Your task to perform on an android device: turn on showing notifications on the lock screen Image 0: 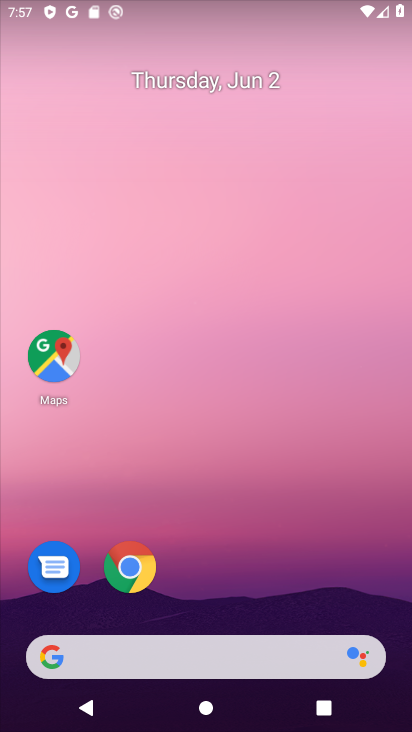
Step 0: drag from (267, 563) to (153, 78)
Your task to perform on an android device: turn on showing notifications on the lock screen Image 1: 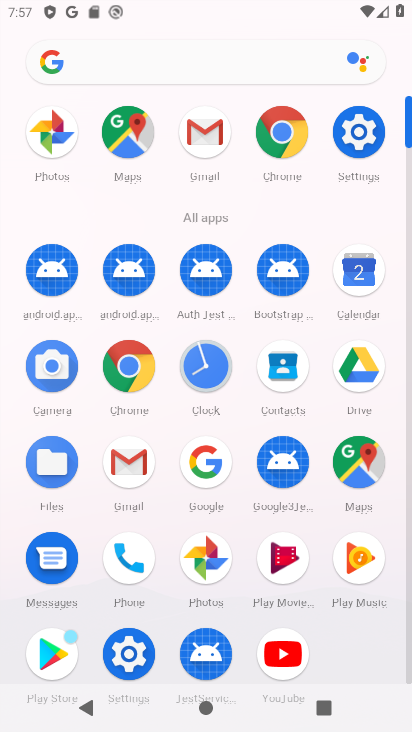
Step 1: click (368, 134)
Your task to perform on an android device: turn on showing notifications on the lock screen Image 2: 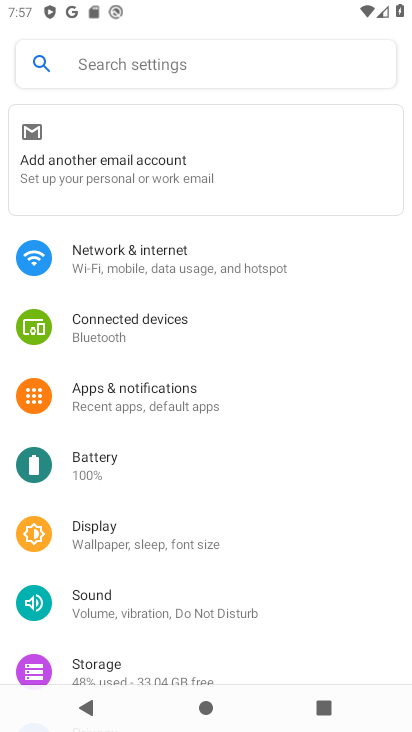
Step 2: click (145, 403)
Your task to perform on an android device: turn on showing notifications on the lock screen Image 3: 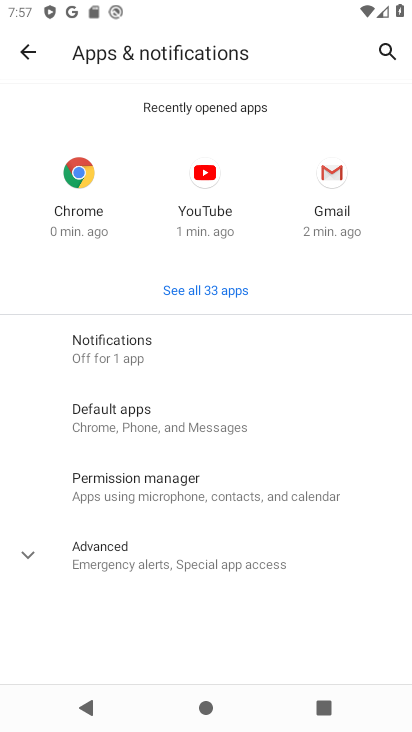
Step 3: click (141, 352)
Your task to perform on an android device: turn on showing notifications on the lock screen Image 4: 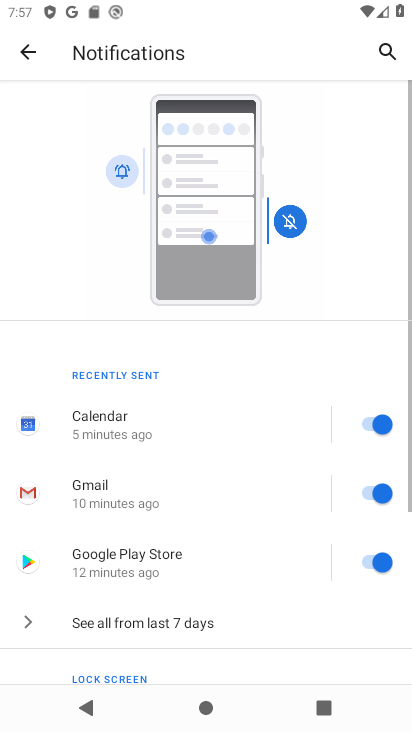
Step 4: drag from (300, 512) to (235, 78)
Your task to perform on an android device: turn on showing notifications on the lock screen Image 5: 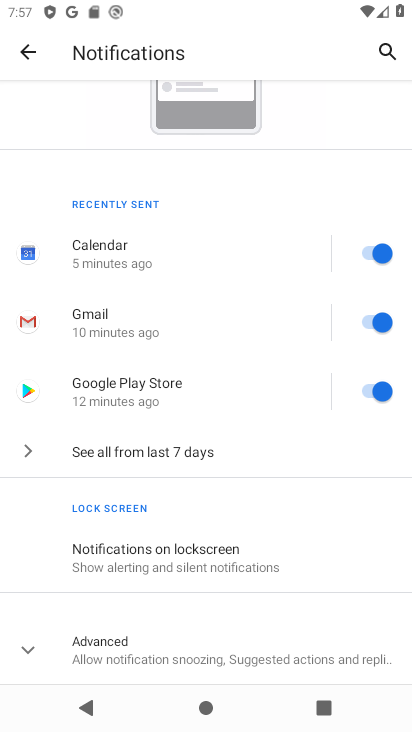
Step 5: click (157, 559)
Your task to perform on an android device: turn on showing notifications on the lock screen Image 6: 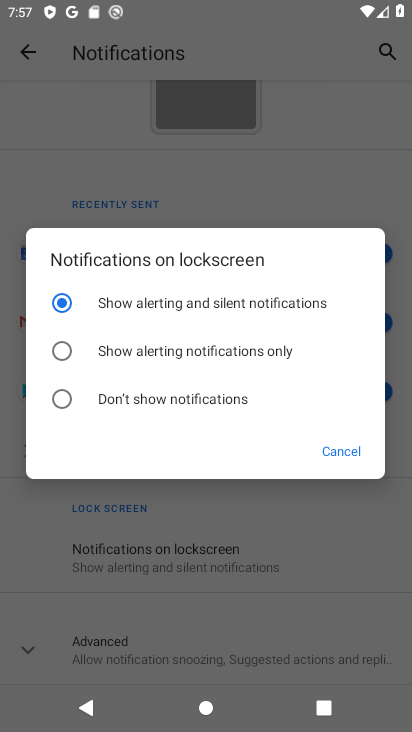
Step 6: click (234, 358)
Your task to perform on an android device: turn on showing notifications on the lock screen Image 7: 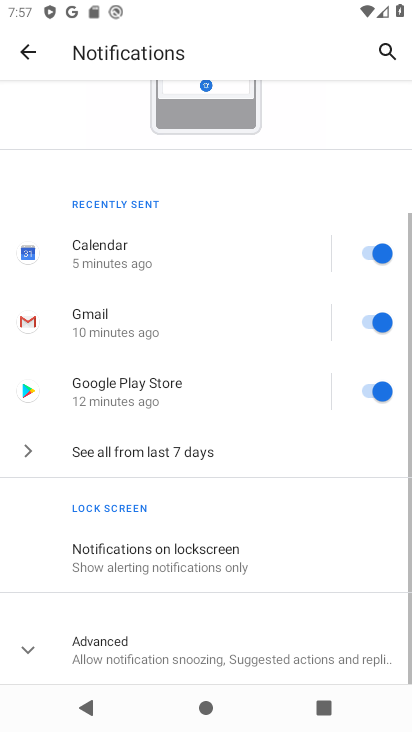
Step 7: task complete